Your task to perform on an android device: Open Chrome and go to settings Image 0: 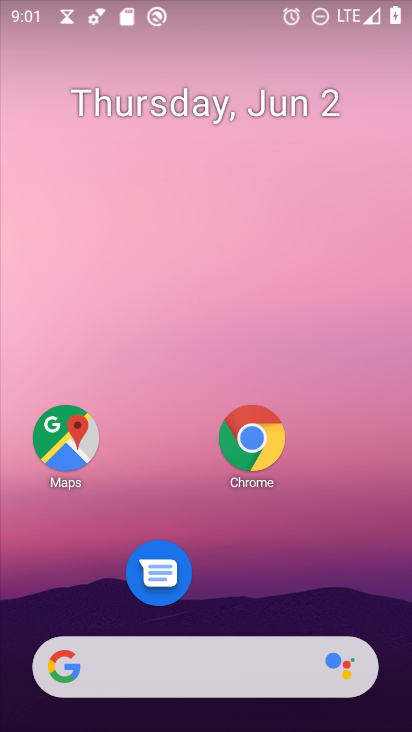
Step 0: press home button
Your task to perform on an android device: Open Chrome and go to settings Image 1: 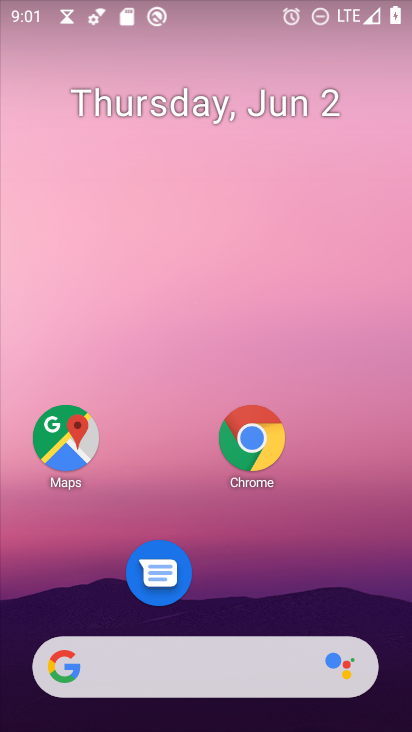
Step 1: click (258, 431)
Your task to perform on an android device: Open Chrome and go to settings Image 2: 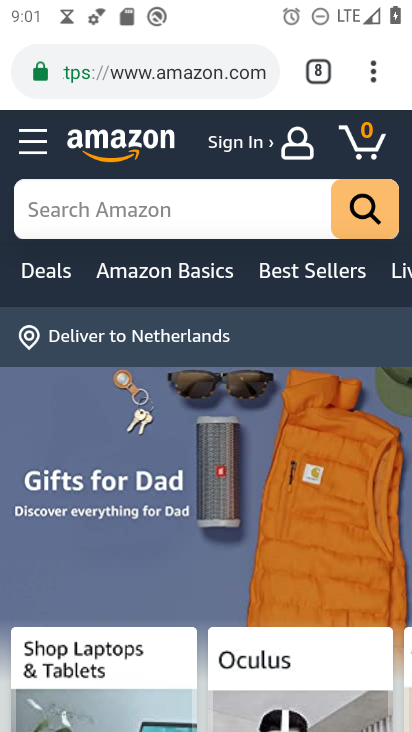
Step 2: task complete